Your task to perform on an android device: Look up the best rated video games on bestbuy.com Image 0: 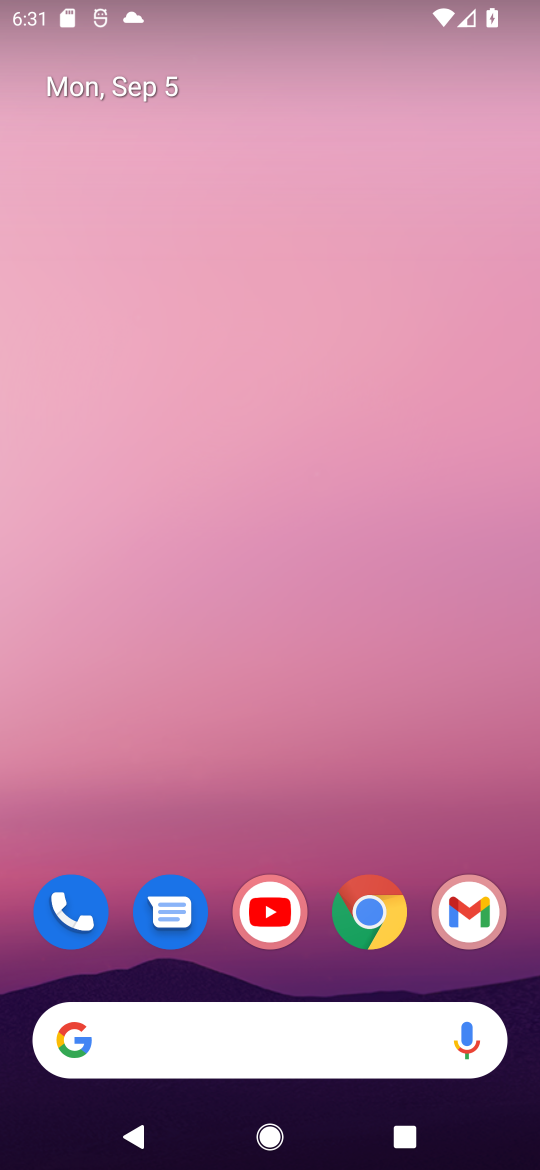
Step 0: click (379, 905)
Your task to perform on an android device: Look up the best rated video games on bestbuy.com Image 1: 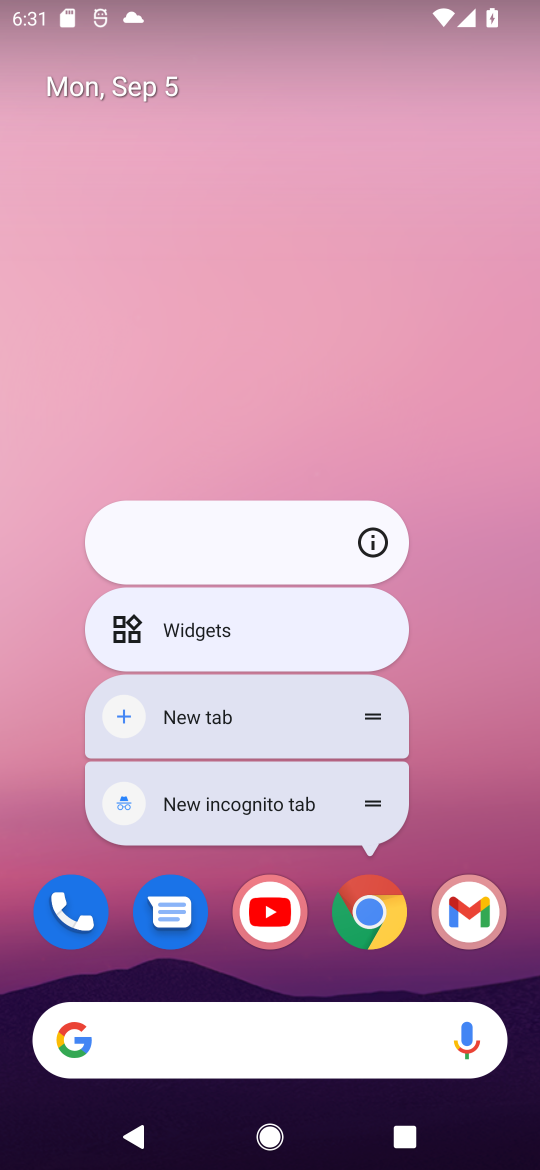
Step 1: click (379, 905)
Your task to perform on an android device: Look up the best rated video games on bestbuy.com Image 2: 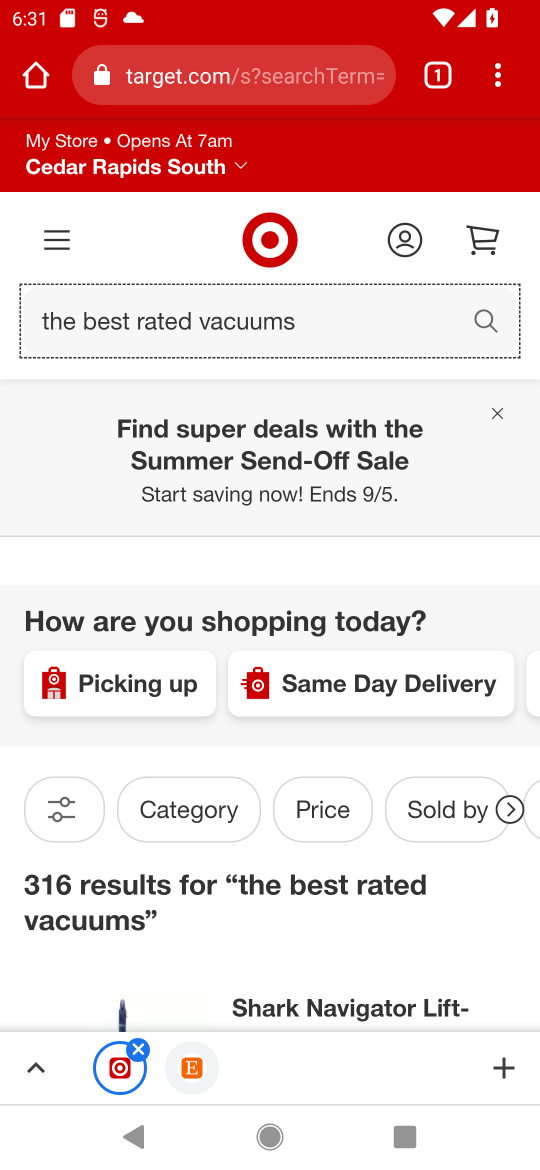
Step 2: click (258, 71)
Your task to perform on an android device: Look up the best rated video games on bestbuy.com Image 3: 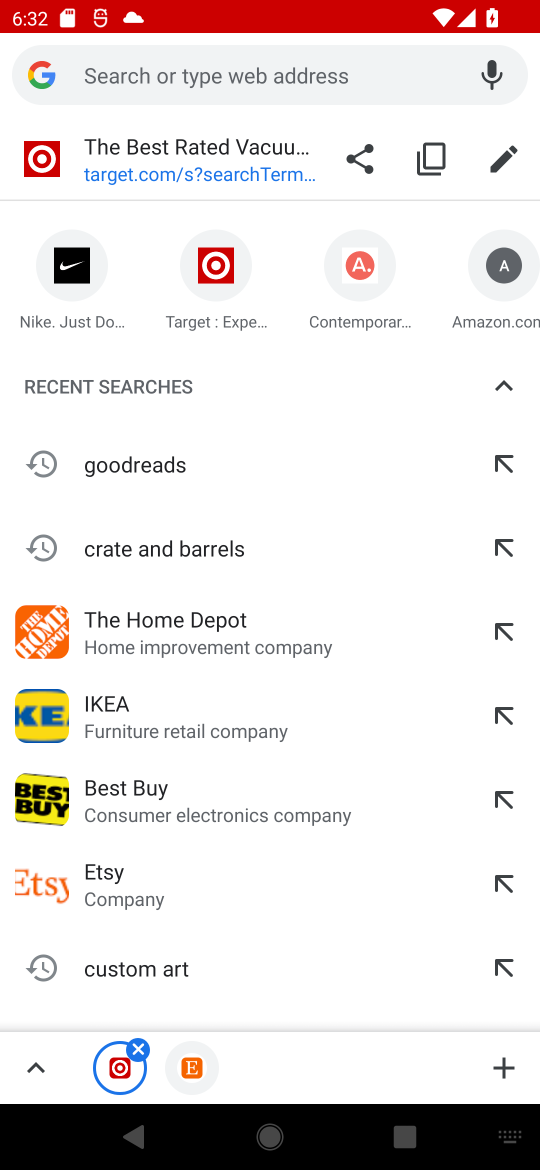
Step 3: type "bestbuy,com"
Your task to perform on an android device: Look up the best rated video games on bestbuy.com Image 4: 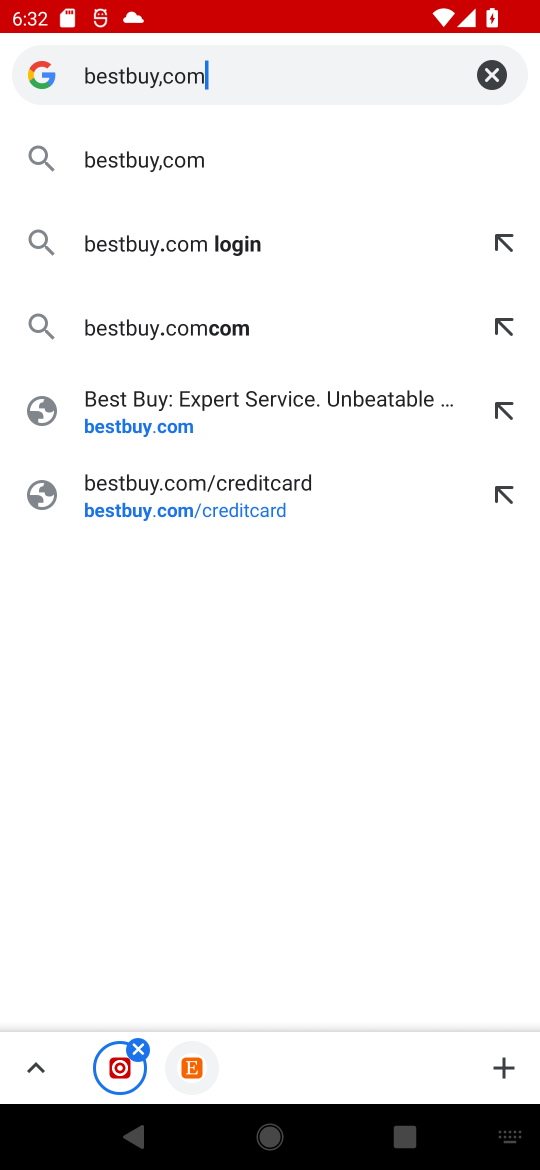
Step 4: click (144, 163)
Your task to perform on an android device: Look up the best rated video games on bestbuy.com Image 5: 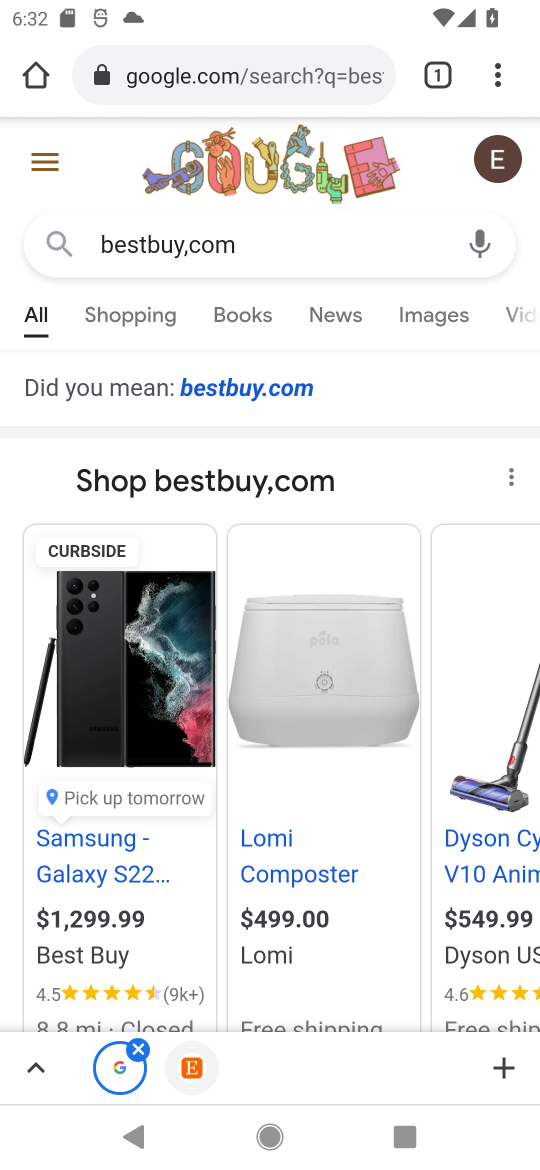
Step 5: task complete